Your task to perform on an android device: When is my next appointment? Image 0: 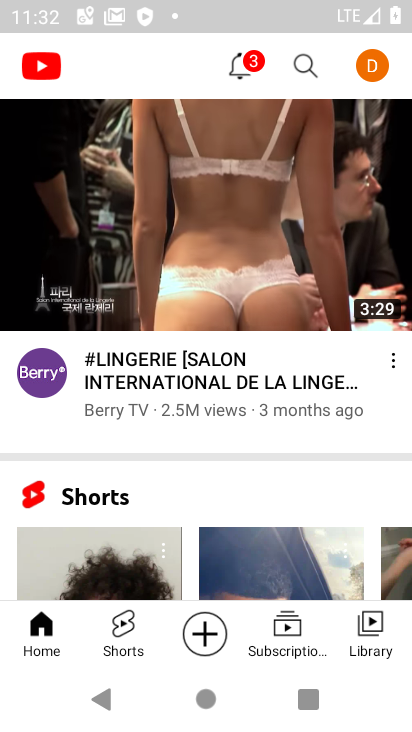
Step 0: press home button
Your task to perform on an android device: When is my next appointment? Image 1: 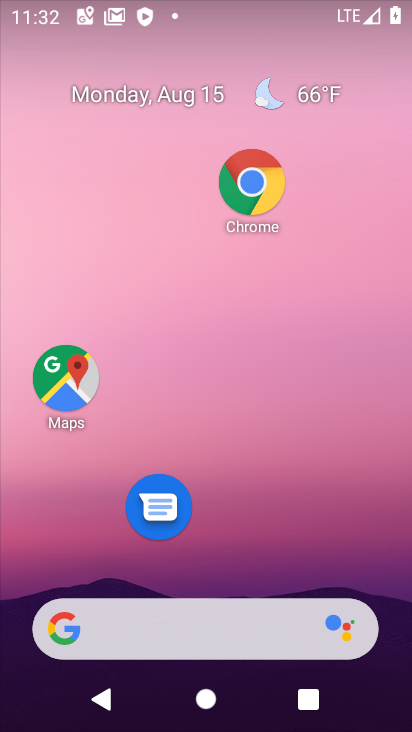
Step 1: drag from (271, 573) to (386, 47)
Your task to perform on an android device: When is my next appointment? Image 2: 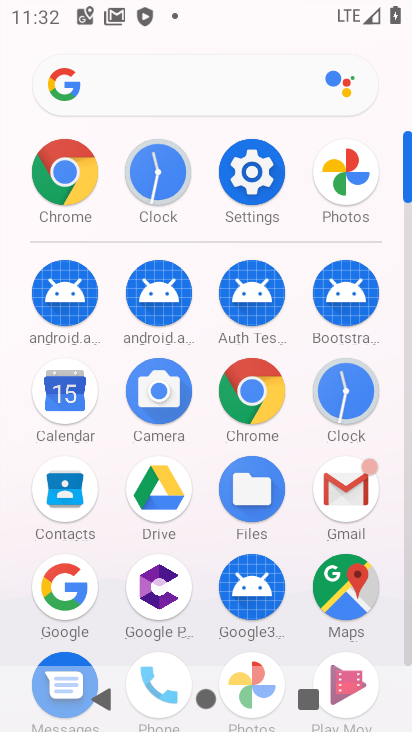
Step 2: click (46, 412)
Your task to perform on an android device: When is my next appointment? Image 3: 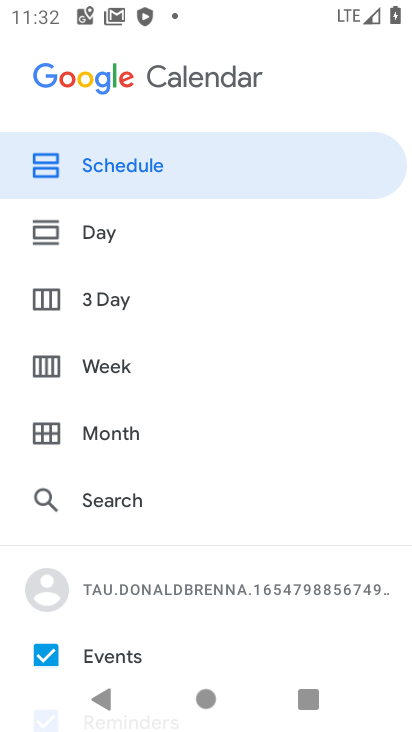
Step 3: task complete